Your task to perform on an android device: Open calendar and show me the first week of next month Image 0: 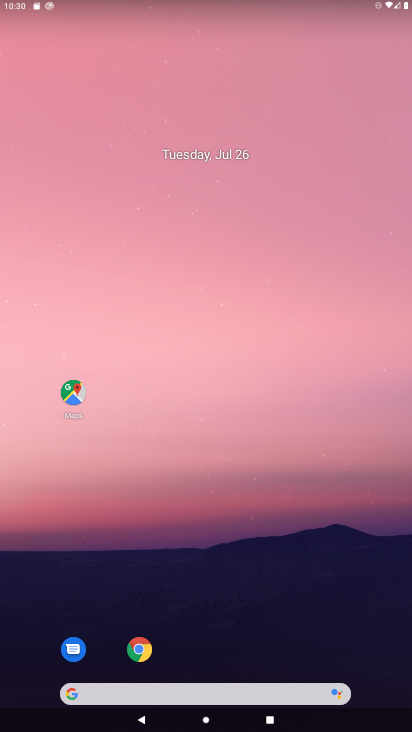
Step 0: drag from (217, 682) to (204, 224)
Your task to perform on an android device: Open calendar and show me the first week of next month Image 1: 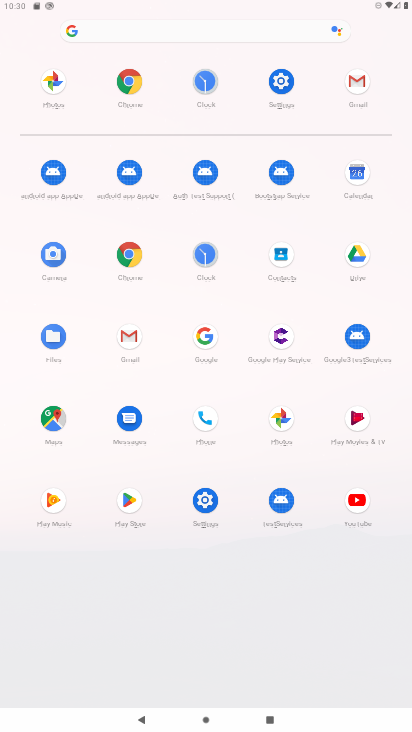
Step 1: click (351, 177)
Your task to perform on an android device: Open calendar and show me the first week of next month Image 2: 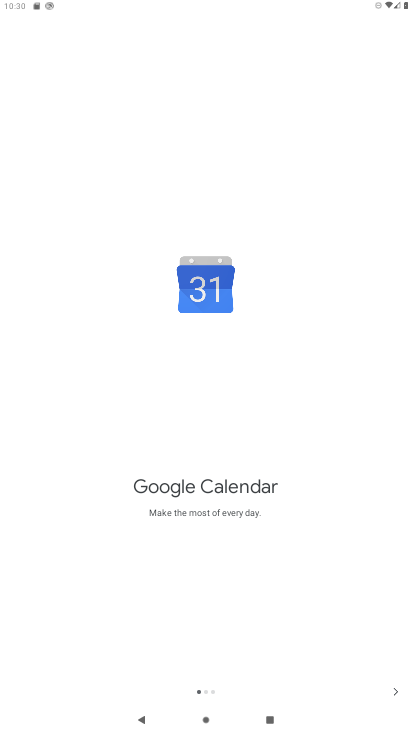
Step 2: click (392, 688)
Your task to perform on an android device: Open calendar and show me the first week of next month Image 3: 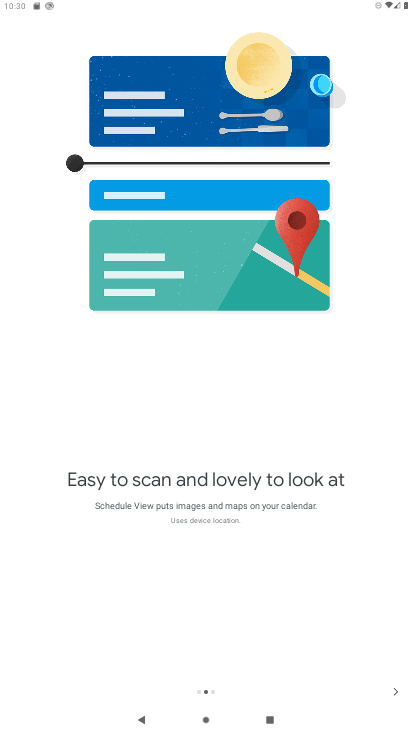
Step 3: click (392, 693)
Your task to perform on an android device: Open calendar and show me the first week of next month Image 4: 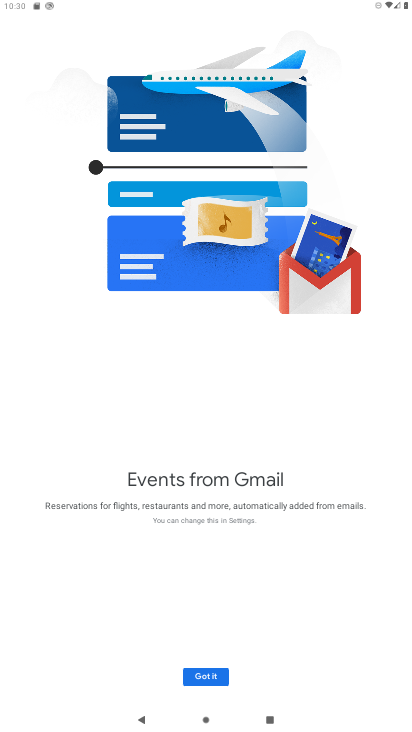
Step 4: click (200, 678)
Your task to perform on an android device: Open calendar and show me the first week of next month Image 5: 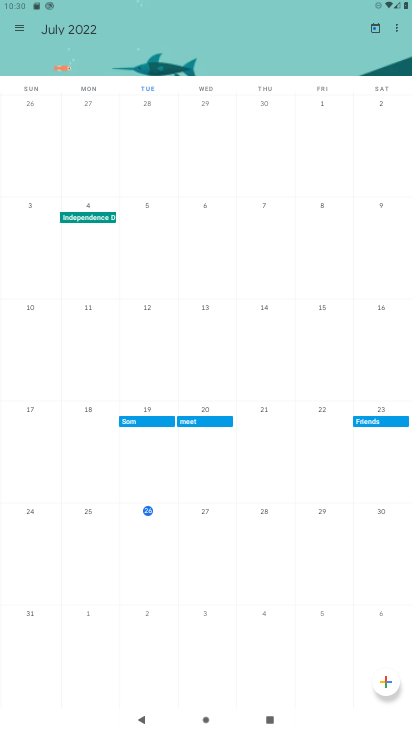
Step 5: click (63, 32)
Your task to perform on an android device: Open calendar and show me the first week of next month Image 6: 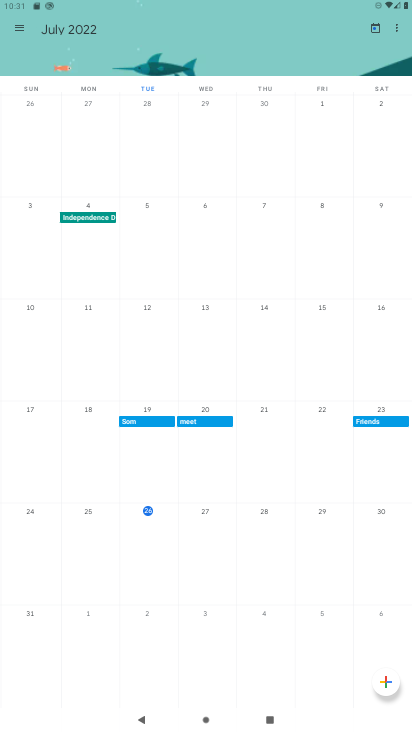
Step 6: click (78, 31)
Your task to perform on an android device: Open calendar and show me the first week of next month Image 7: 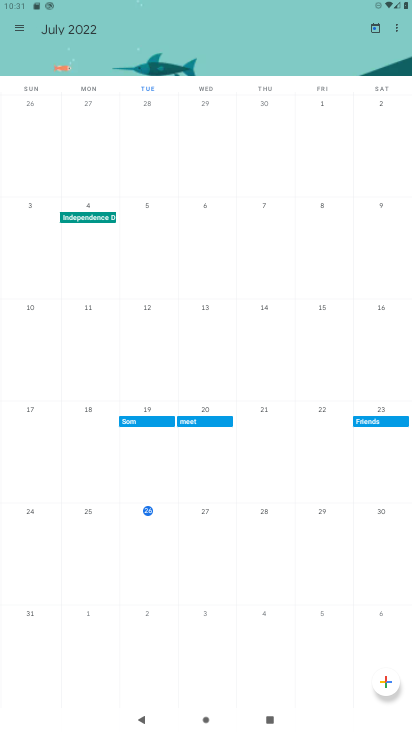
Step 7: drag from (403, 459) to (6, 424)
Your task to perform on an android device: Open calendar and show me the first week of next month Image 8: 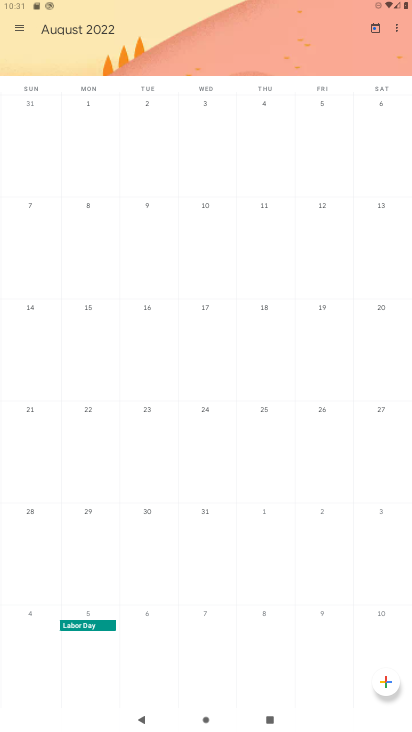
Step 8: click (40, 136)
Your task to perform on an android device: Open calendar and show me the first week of next month Image 9: 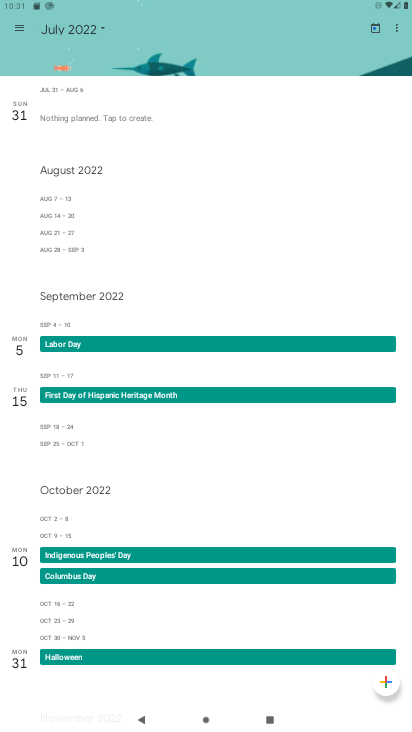
Step 9: task complete